Your task to perform on an android device: Open the map Image 0: 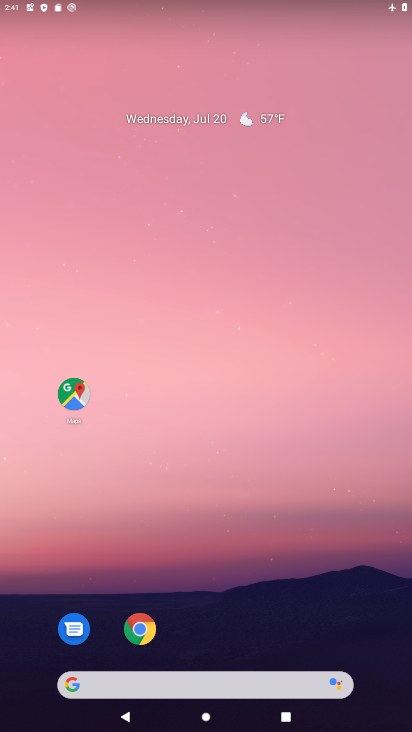
Step 0: click (88, 396)
Your task to perform on an android device: Open the map Image 1: 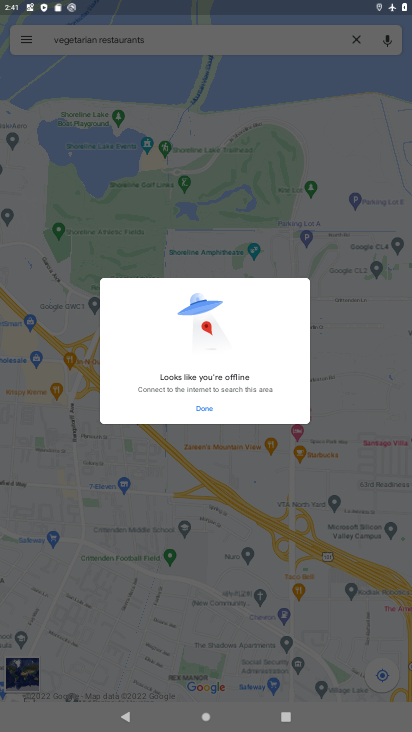
Step 1: task complete